Your task to perform on an android device: open sync settings in chrome Image 0: 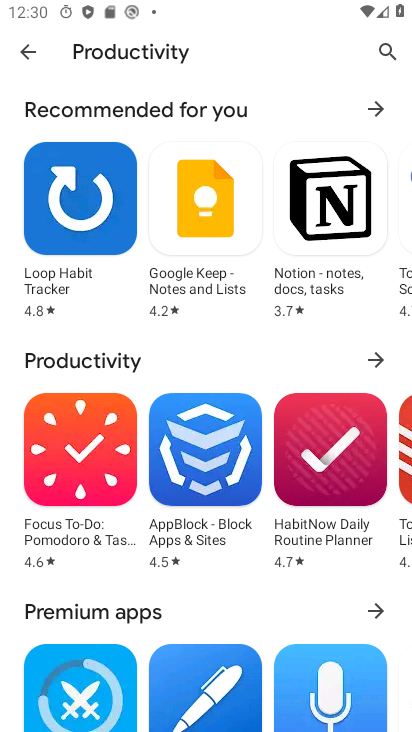
Step 0: press home button
Your task to perform on an android device: open sync settings in chrome Image 1: 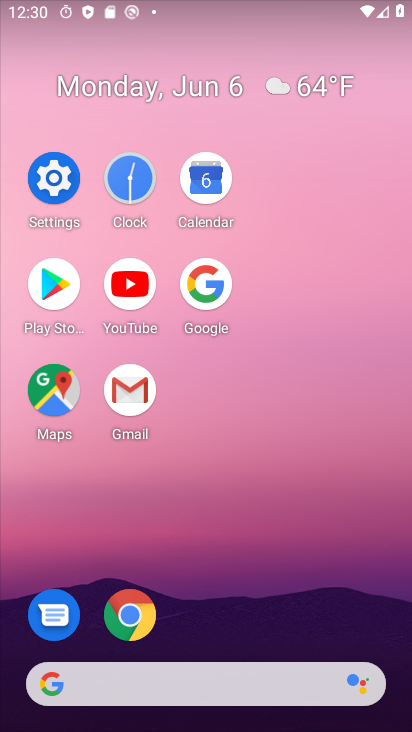
Step 1: click (141, 601)
Your task to perform on an android device: open sync settings in chrome Image 2: 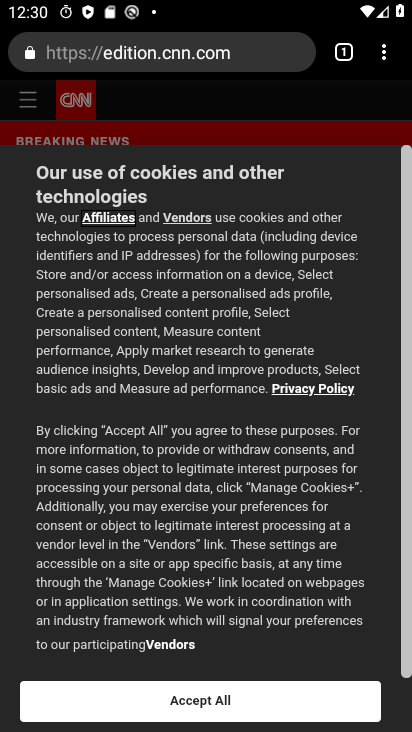
Step 2: click (384, 48)
Your task to perform on an android device: open sync settings in chrome Image 3: 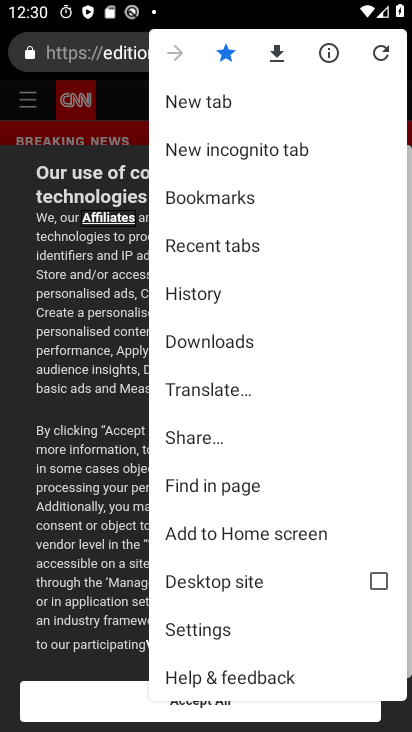
Step 3: drag from (202, 619) to (228, 282)
Your task to perform on an android device: open sync settings in chrome Image 4: 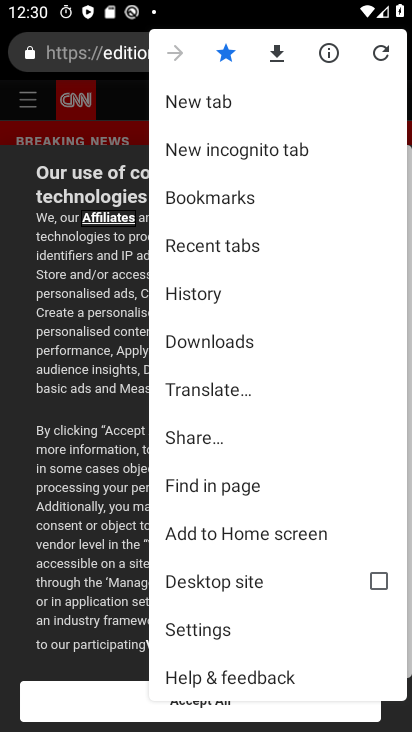
Step 4: click (218, 624)
Your task to perform on an android device: open sync settings in chrome Image 5: 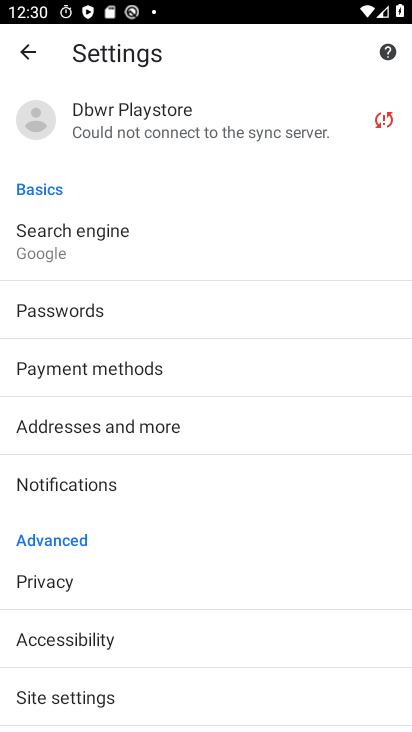
Step 5: click (112, 697)
Your task to perform on an android device: open sync settings in chrome Image 6: 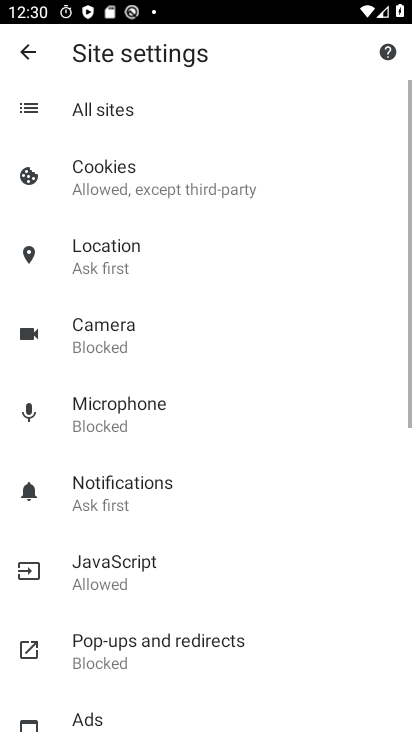
Step 6: drag from (111, 701) to (202, 310)
Your task to perform on an android device: open sync settings in chrome Image 7: 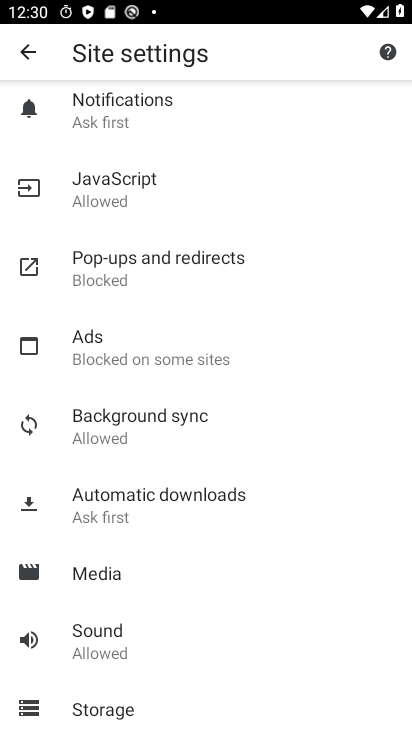
Step 7: click (180, 441)
Your task to perform on an android device: open sync settings in chrome Image 8: 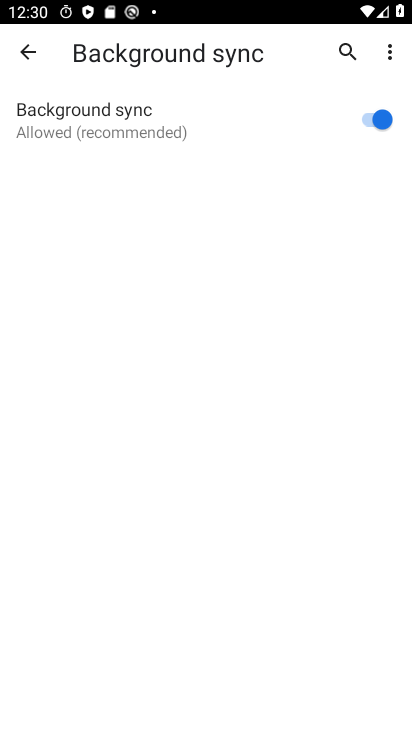
Step 8: task complete